Your task to perform on an android device: open device folders in google photos Image 0: 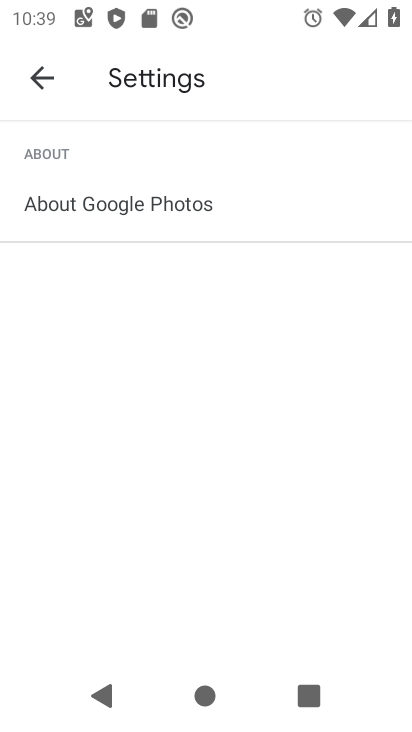
Step 0: press home button
Your task to perform on an android device: open device folders in google photos Image 1: 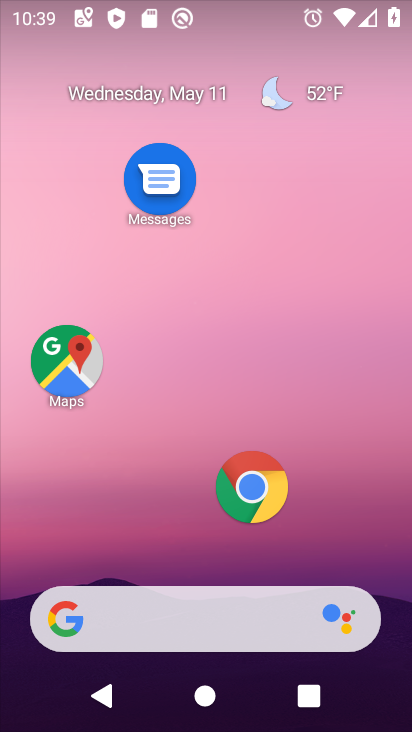
Step 1: drag from (165, 525) to (241, 170)
Your task to perform on an android device: open device folders in google photos Image 2: 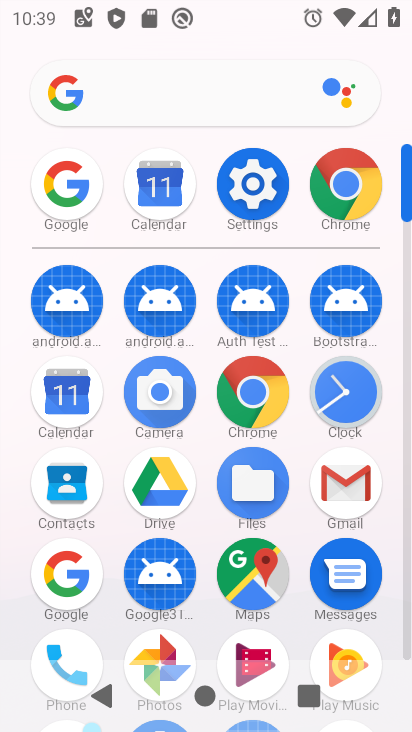
Step 2: click (150, 641)
Your task to perform on an android device: open device folders in google photos Image 3: 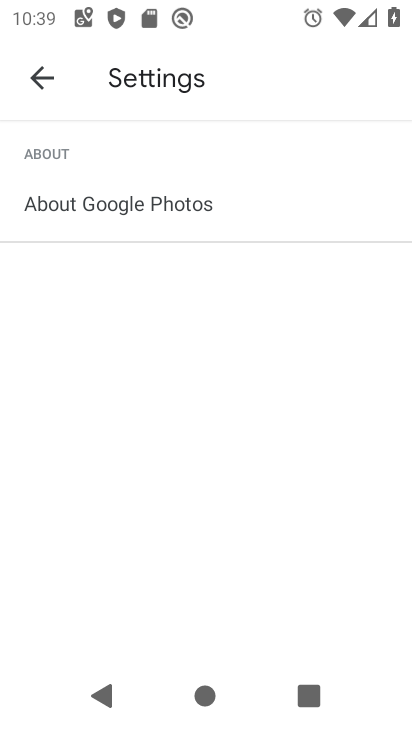
Step 3: click (29, 78)
Your task to perform on an android device: open device folders in google photos Image 4: 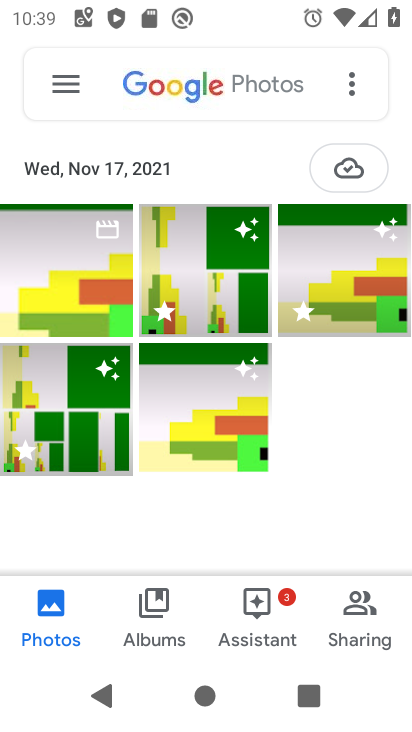
Step 4: click (50, 85)
Your task to perform on an android device: open device folders in google photos Image 5: 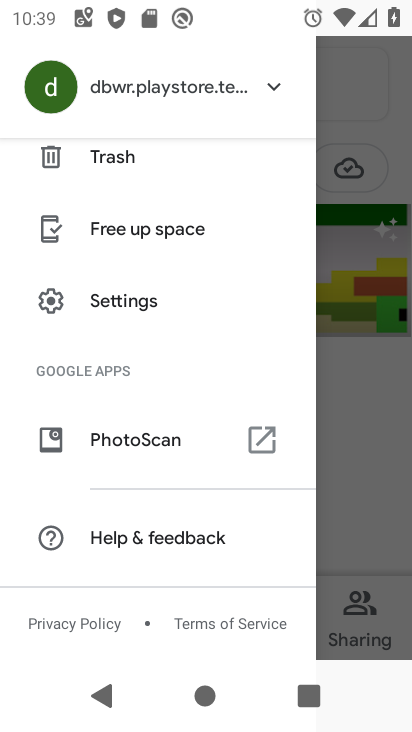
Step 5: drag from (162, 187) to (156, 596)
Your task to perform on an android device: open device folders in google photos Image 6: 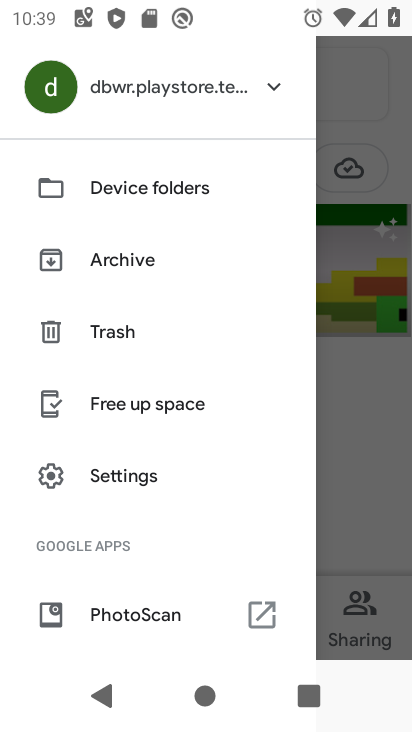
Step 6: click (125, 187)
Your task to perform on an android device: open device folders in google photos Image 7: 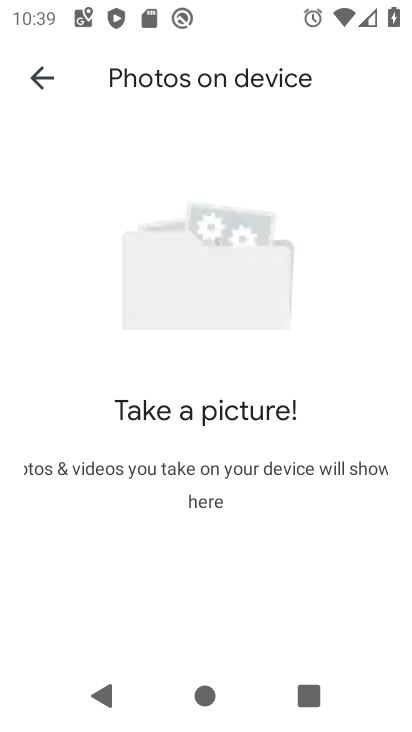
Step 7: task complete